Your task to perform on an android device: Open location settings Image 0: 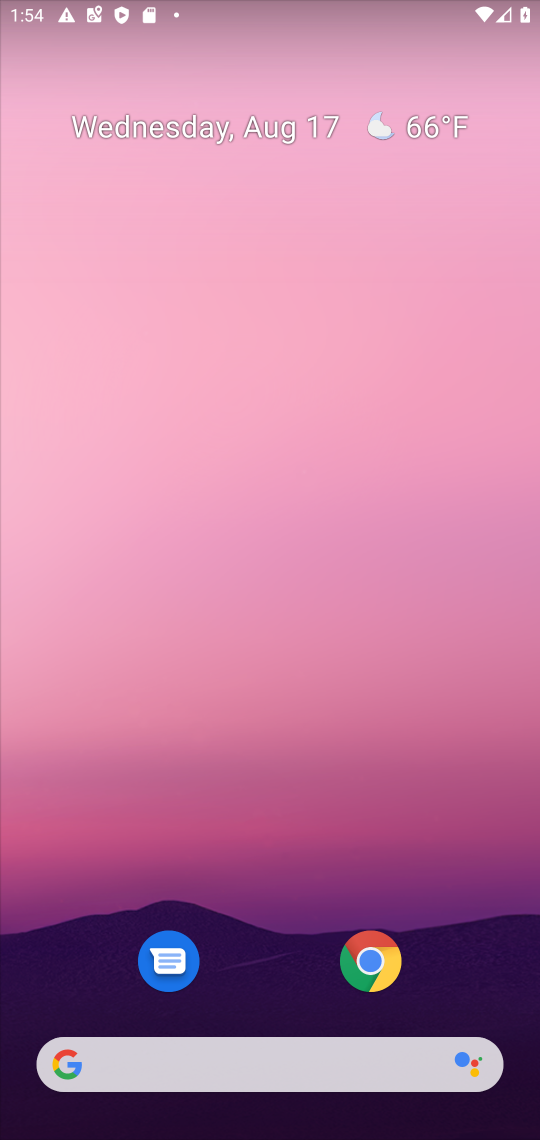
Step 0: drag from (216, 1005) to (306, 199)
Your task to perform on an android device: Open location settings Image 1: 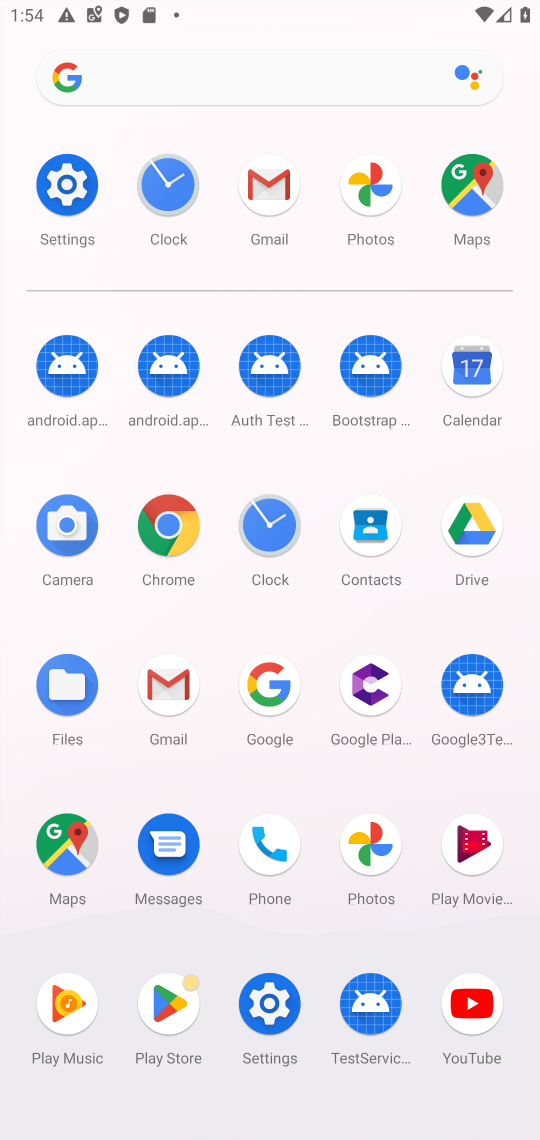
Step 1: click (75, 203)
Your task to perform on an android device: Open location settings Image 2: 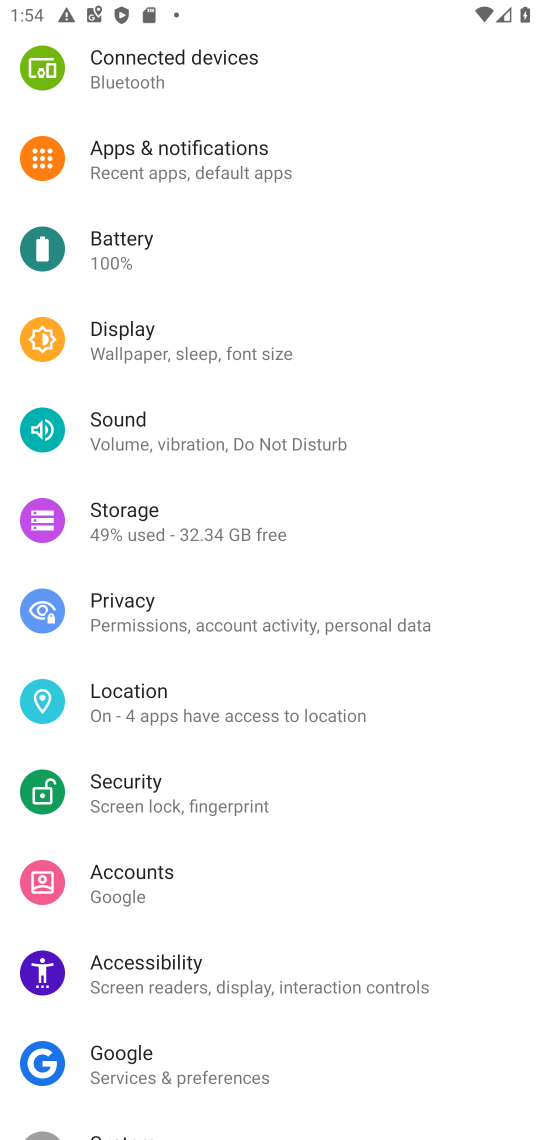
Step 2: drag from (180, 949) to (387, 808)
Your task to perform on an android device: Open location settings Image 3: 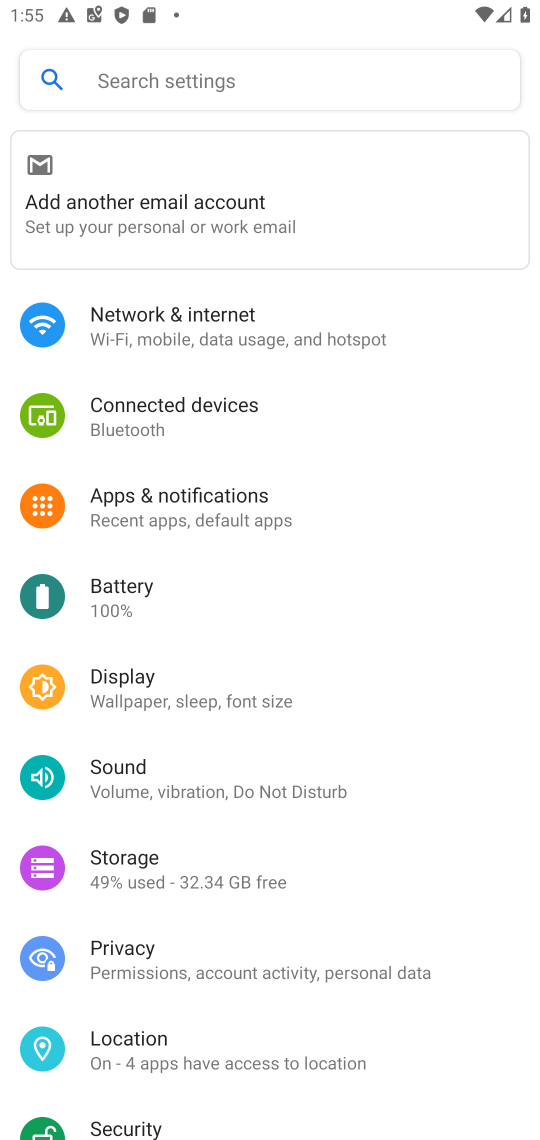
Step 3: click (193, 1041)
Your task to perform on an android device: Open location settings Image 4: 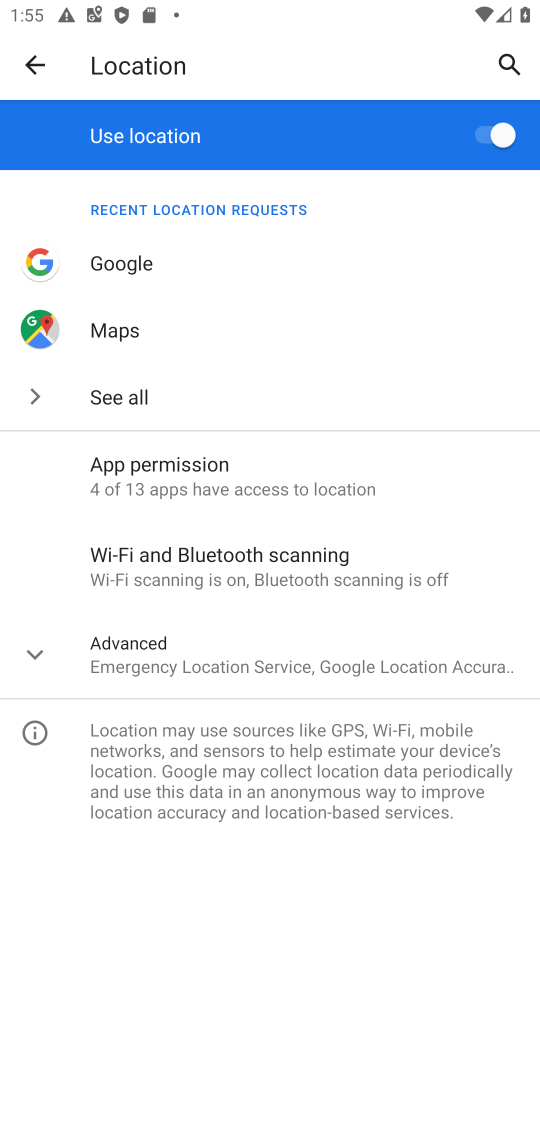
Step 4: task complete